Your task to perform on an android device: turn notification dots off Image 0: 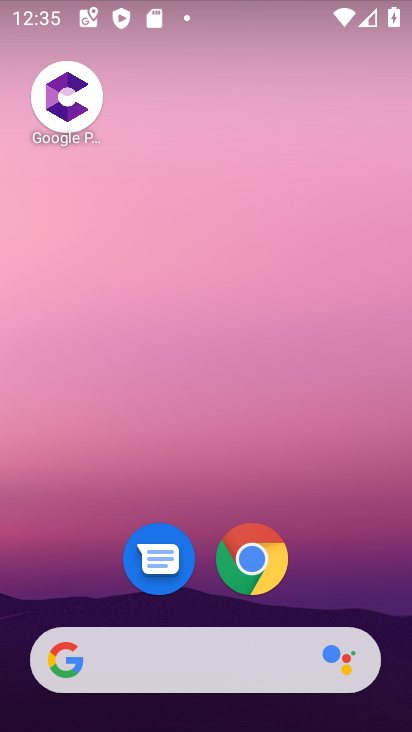
Step 0: drag from (166, 727) to (236, 79)
Your task to perform on an android device: turn notification dots off Image 1: 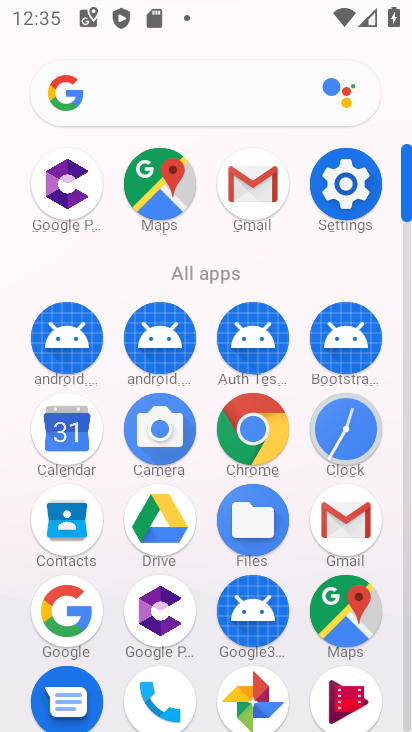
Step 1: click (356, 197)
Your task to perform on an android device: turn notification dots off Image 2: 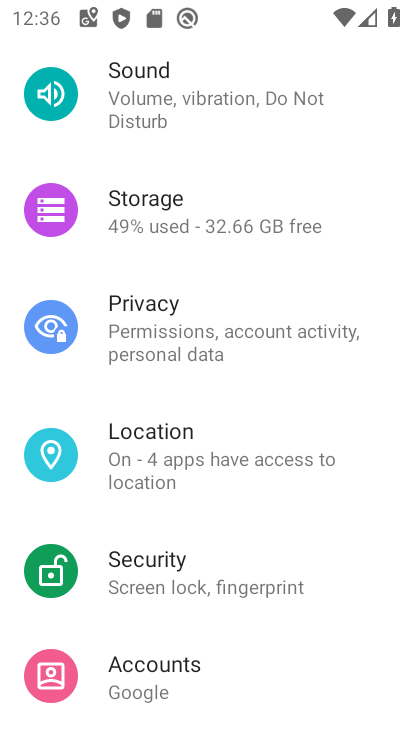
Step 2: drag from (241, 163) to (295, 688)
Your task to perform on an android device: turn notification dots off Image 3: 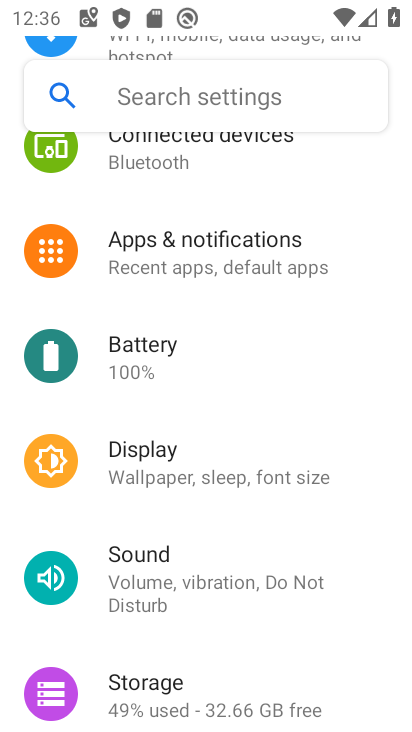
Step 3: click (243, 253)
Your task to perform on an android device: turn notification dots off Image 4: 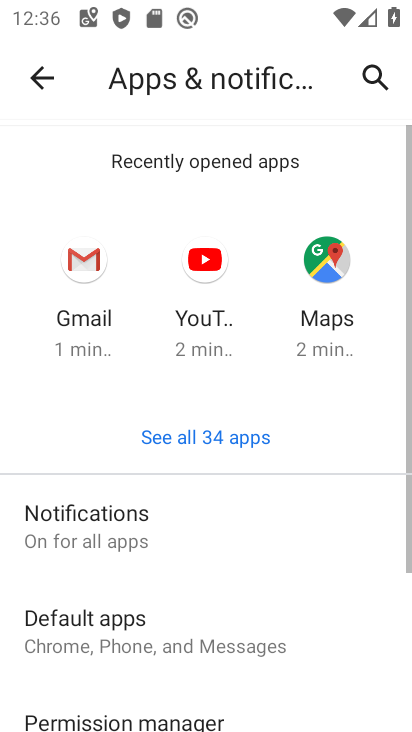
Step 4: click (171, 537)
Your task to perform on an android device: turn notification dots off Image 5: 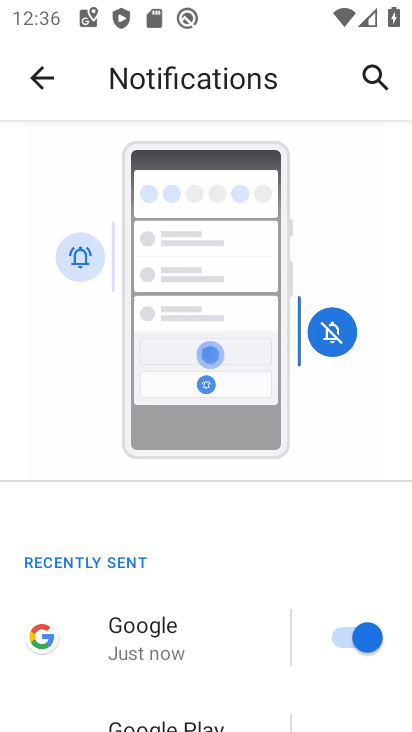
Step 5: drag from (254, 679) to (238, 135)
Your task to perform on an android device: turn notification dots off Image 6: 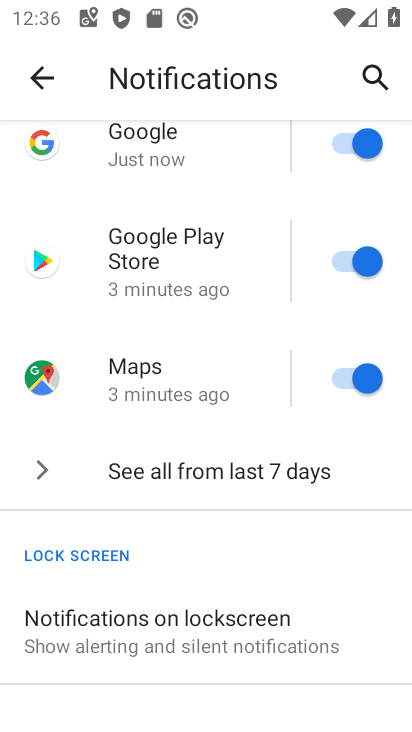
Step 6: drag from (237, 676) to (242, 252)
Your task to perform on an android device: turn notification dots off Image 7: 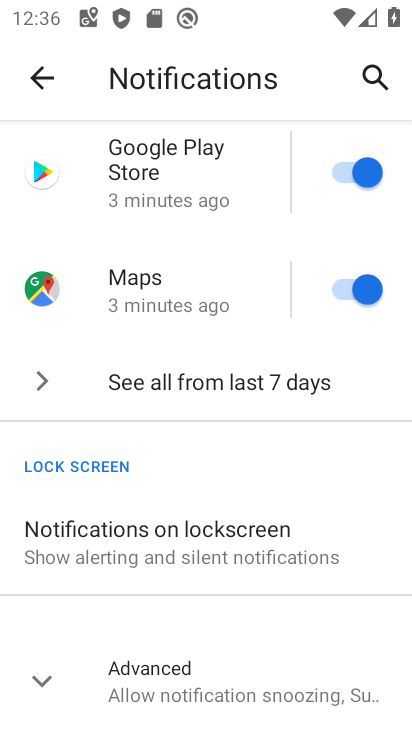
Step 7: click (186, 680)
Your task to perform on an android device: turn notification dots off Image 8: 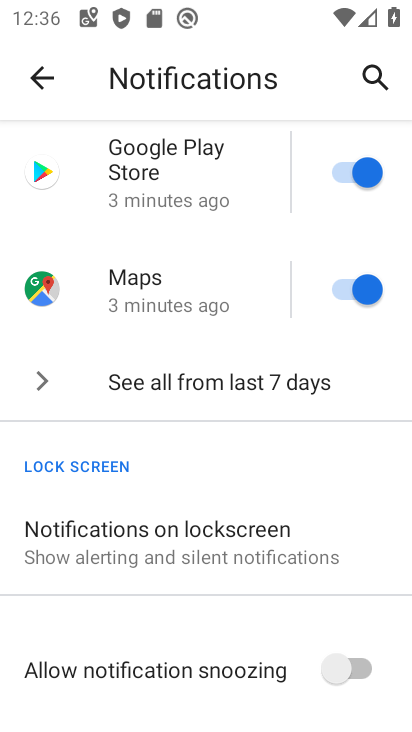
Step 8: drag from (201, 592) to (189, 236)
Your task to perform on an android device: turn notification dots off Image 9: 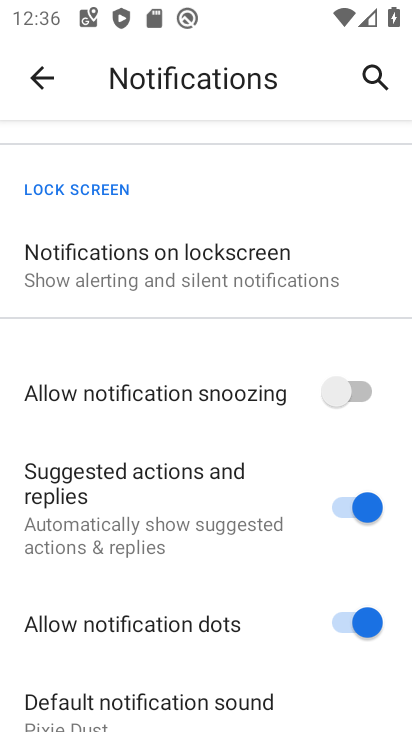
Step 9: click (359, 628)
Your task to perform on an android device: turn notification dots off Image 10: 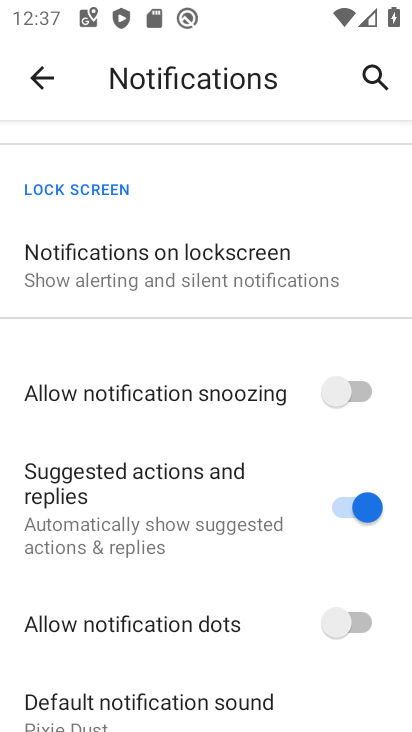
Step 10: task complete